Your task to perform on an android device: Go to notification settings Image 0: 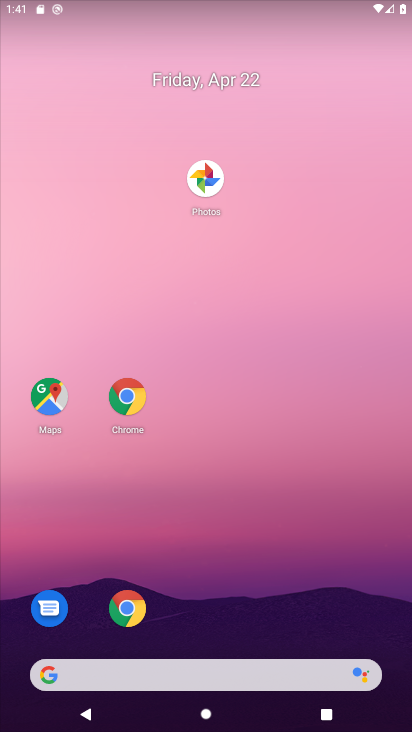
Step 0: drag from (370, 718) to (230, 134)
Your task to perform on an android device: Go to notification settings Image 1: 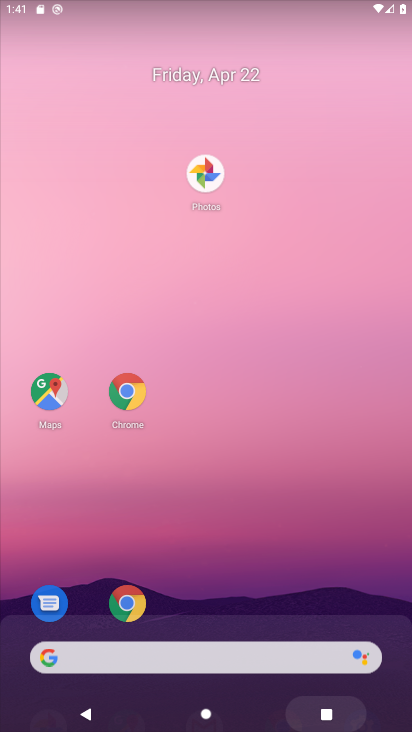
Step 1: drag from (317, 539) to (271, 112)
Your task to perform on an android device: Go to notification settings Image 2: 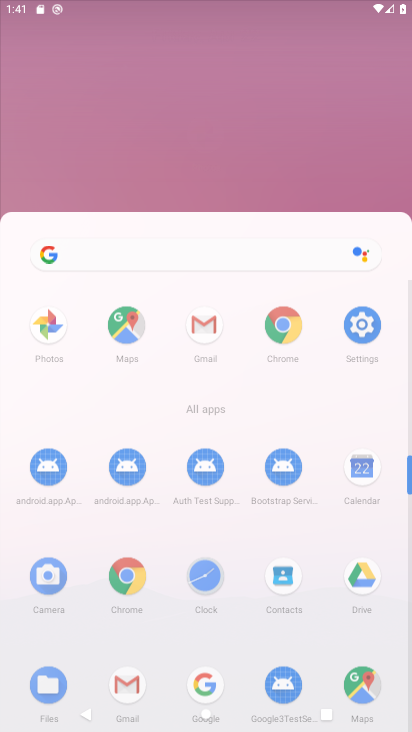
Step 2: drag from (263, 350) to (210, 163)
Your task to perform on an android device: Go to notification settings Image 3: 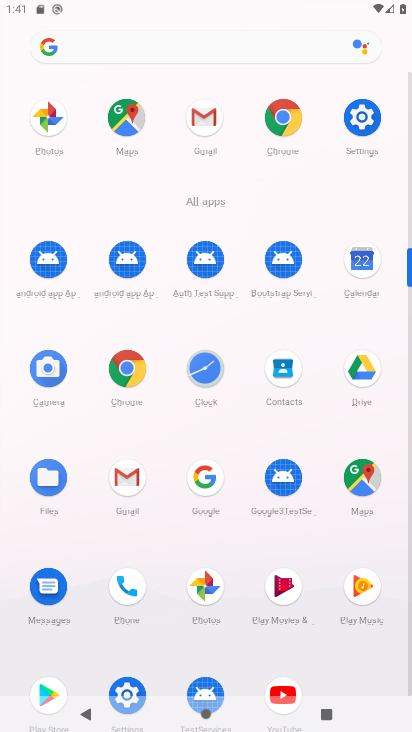
Step 3: click (356, 115)
Your task to perform on an android device: Go to notification settings Image 4: 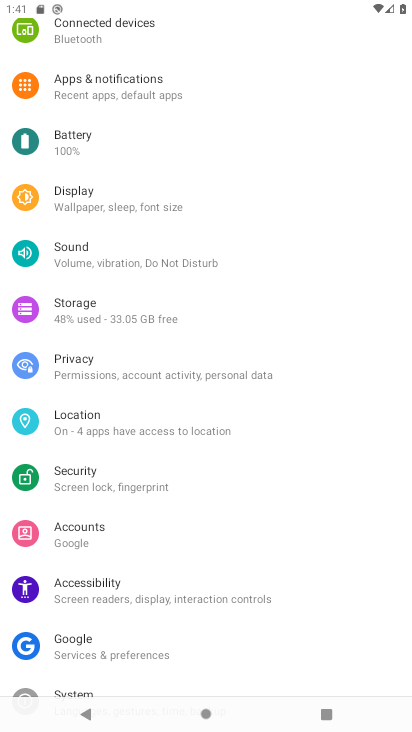
Step 4: click (110, 86)
Your task to perform on an android device: Go to notification settings Image 5: 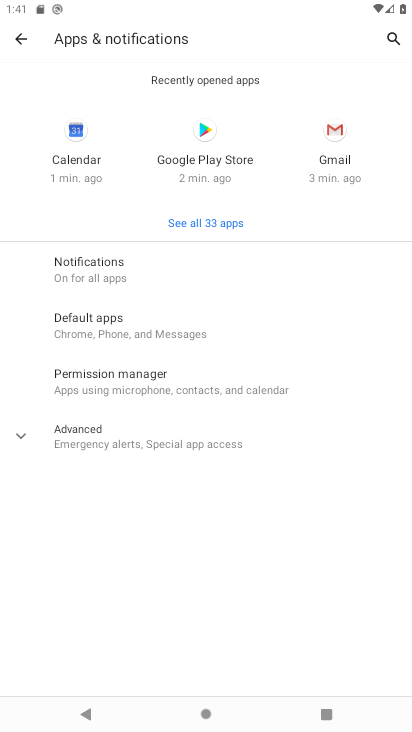
Step 5: click (89, 270)
Your task to perform on an android device: Go to notification settings Image 6: 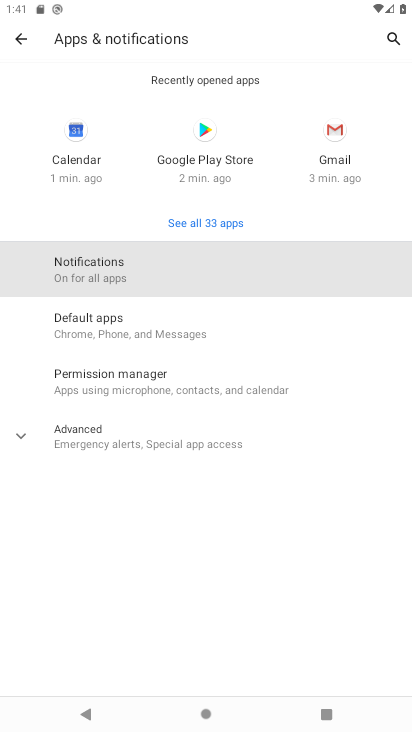
Step 6: click (89, 268)
Your task to perform on an android device: Go to notification settings Image 7: 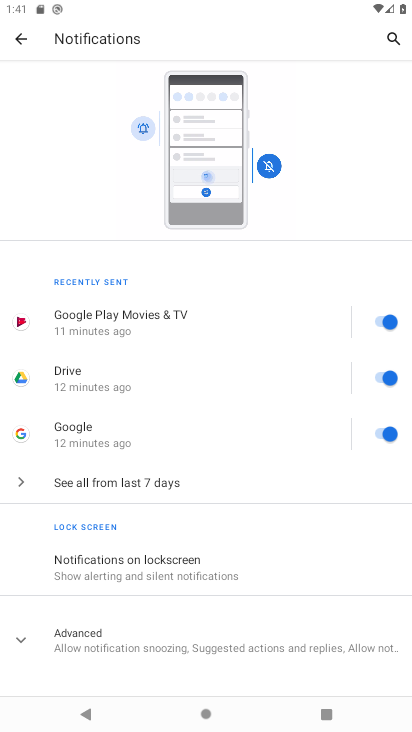
Step 7: drag from (255, 441) to (273, 344)
Your task to perform on an android device: Go to notification settings Image 8: 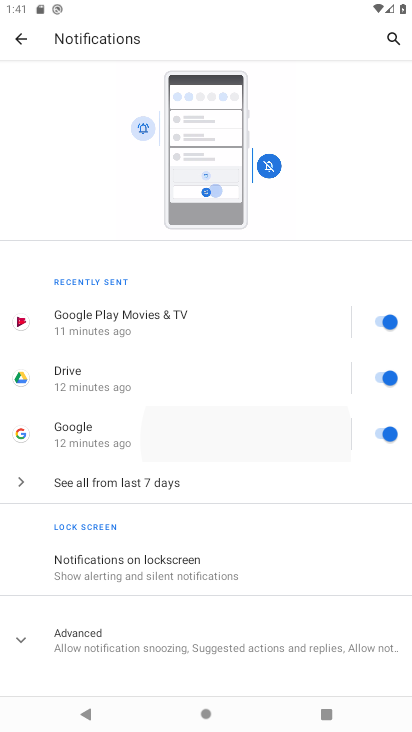
Step 8: drag from (243, 521) to (187, 189)
Your task to perform on an android device: Go to notification settings Image 9: 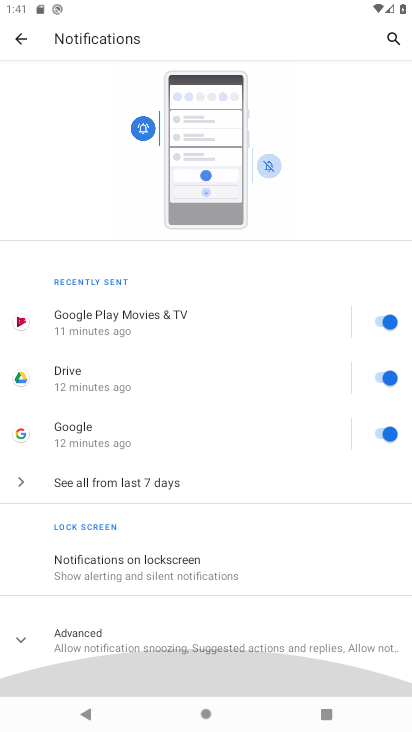
Step 9: drag from (213, 497) to (104, 62)
Your task to perform on an android device: Go to notification settings Image 10: 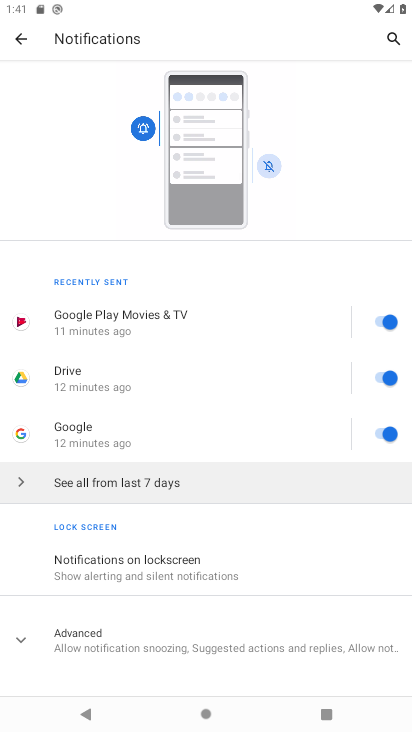
Step 10: drag from (247, 521) to (157, 56)
Your task to perform on an android device: Go to notification settings Image 11: 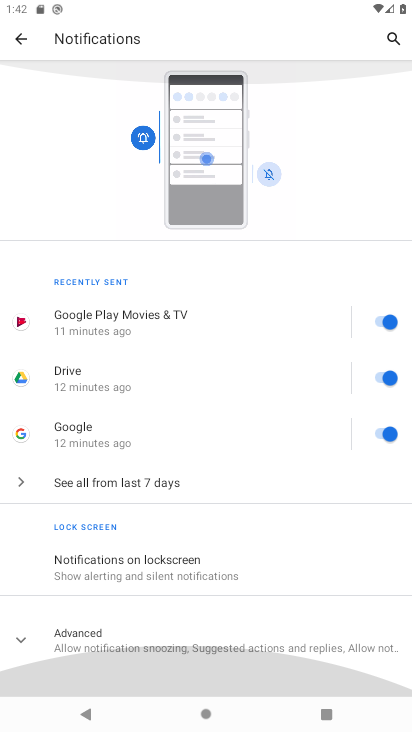
Step 11: click (140, 21)
Your task to perform on an android device: Go to notification settings Image 12: 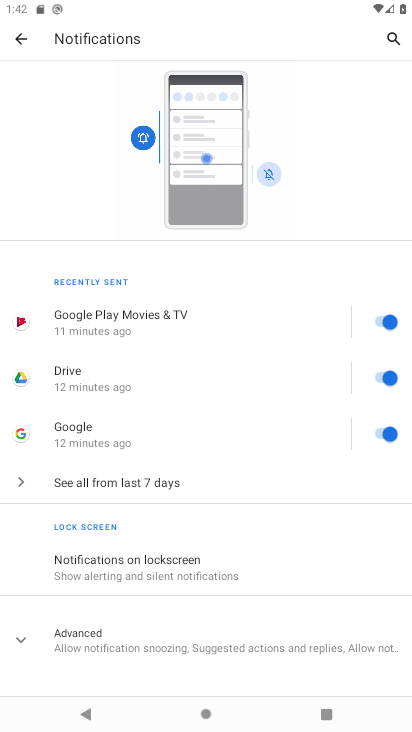
Step 12: task complete